Your task to perform on an android device: Go to display settings Image 0: 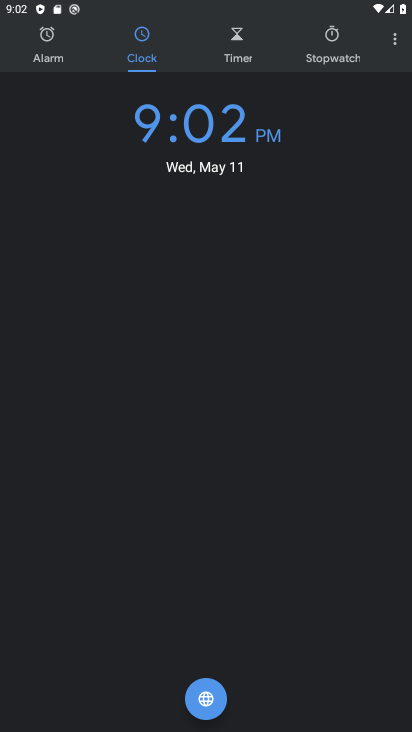
Step 0: press home button
Your task to perform on an android device: Go to display settings Image 1: 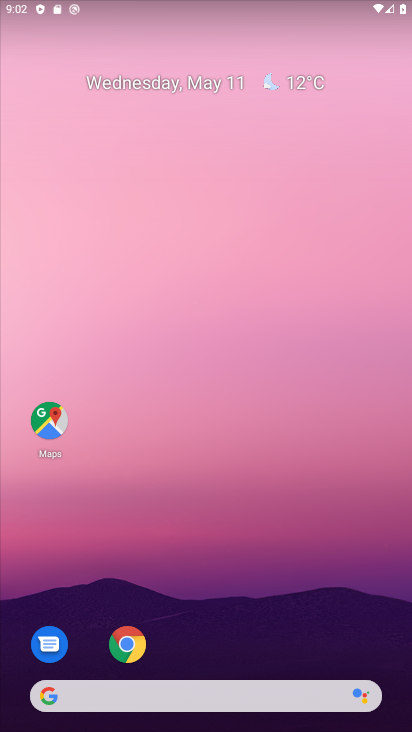
Step 1: drag from (217, 628) to (229, 219)
Your task to perform on an android device: Go to display settings Image 2: 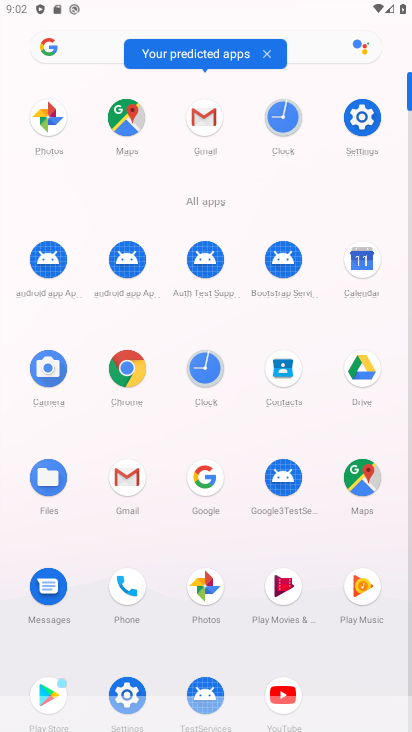
Step 2: click (362, 146)
Your task to perform on an android device: Go to display settings Image 3: 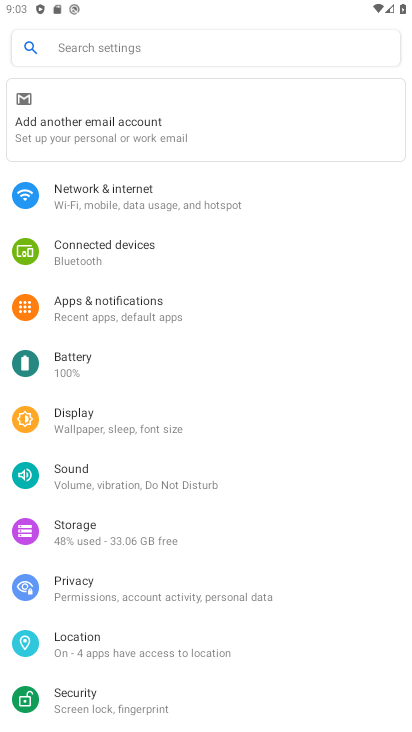
Step 3: click (142, 417)
Your task to perform on an android device: Go to display settings Image 4: 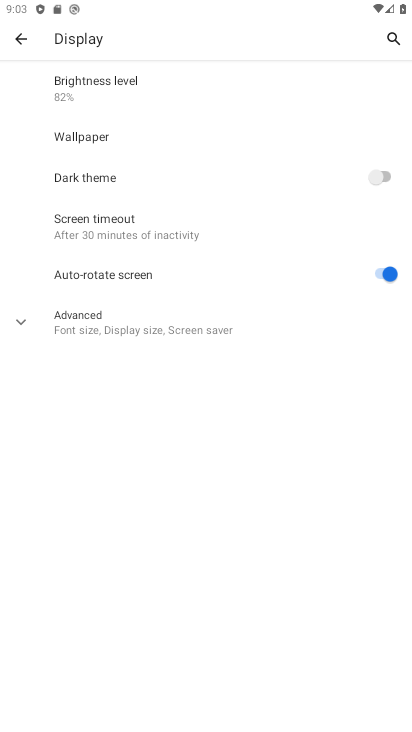
Step 4: task complete